Your task to perform on an android device: turn on notifications settings in the gmail app Image 0: 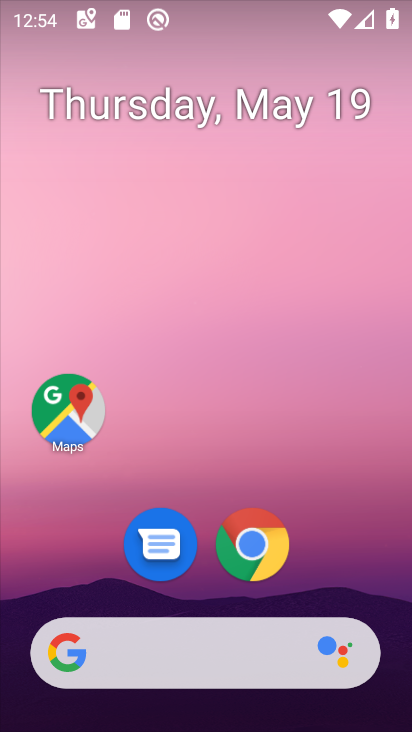
Step 0: drag from (340, 676) to (302, 234)
Your task to perform on an android device: turn on notifications settings in the gmail app Image 1: 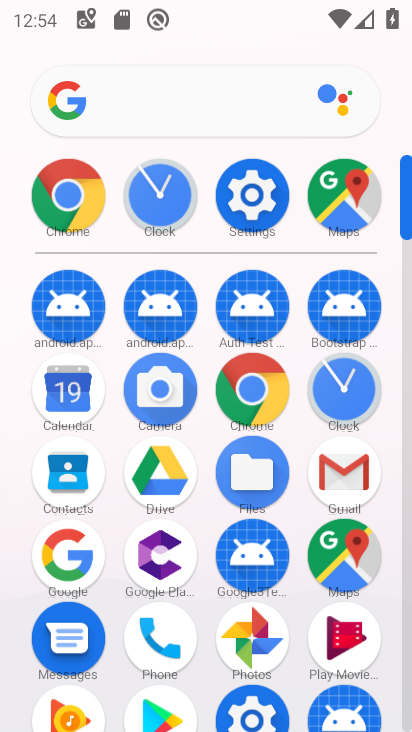
Step 1: click (347, 463)
Your task to perform on an android device: turn on notifications settings in the gmail app Image 2: 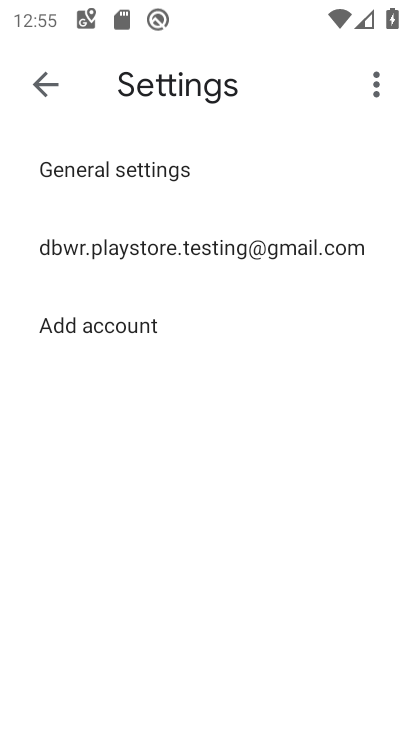
Step 2: click (147, 244)
Your task to perform on an android device: turn on notifications settings in the gmail app Image 3: 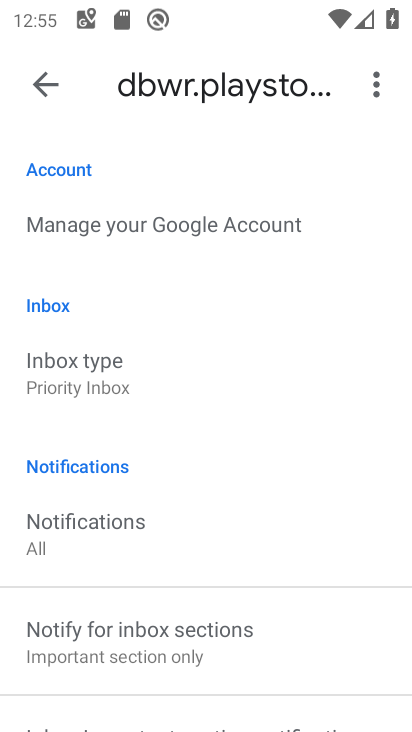
Step 3: drag from (166, 656) to (175, 121)
Your task to perform on an android device: turn on notifications settings in the gmail app Image 4: 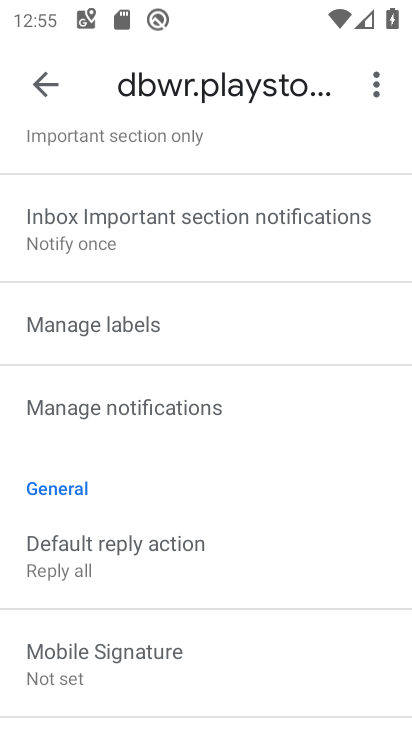
Step 4: click (174, 395)
Your task to perform on an android device: turn on notifications settings in the gmail app Image 5: 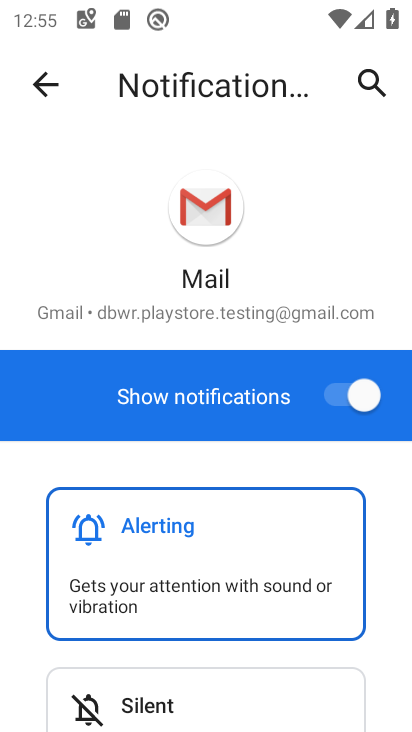
Step 5: task complete